Your task to perform on an android device: Go to wifi settings Image 0: 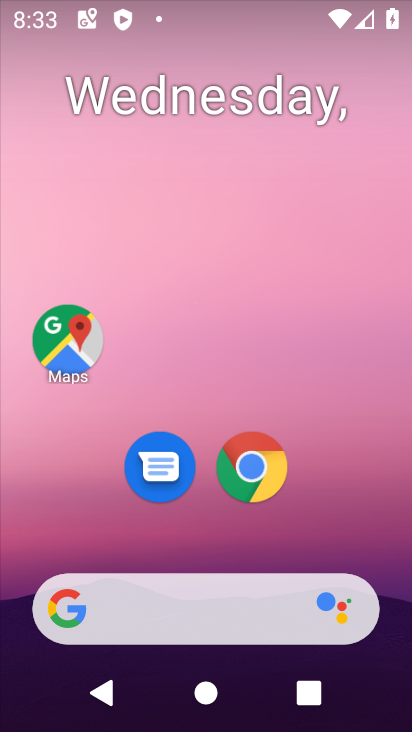
Step 0: drag from (266, 696) to (265, 201)
Your task to perform on an android device: Go to wifi settings Image 1: 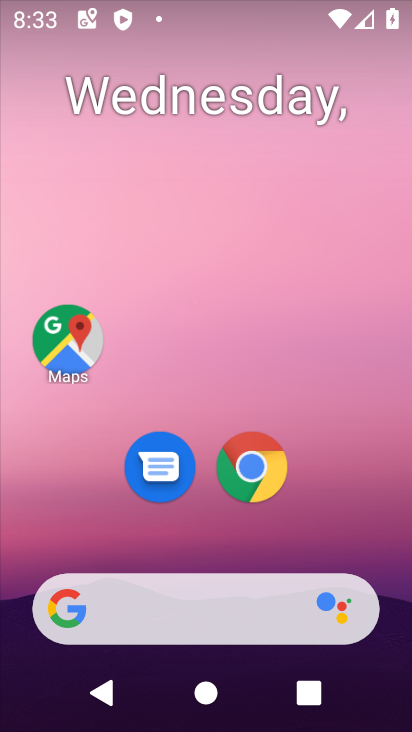
Step 1: drag from (272, 455) to (221, 82)
Your task to perform on an android device: Go to wifi settings Image 2: 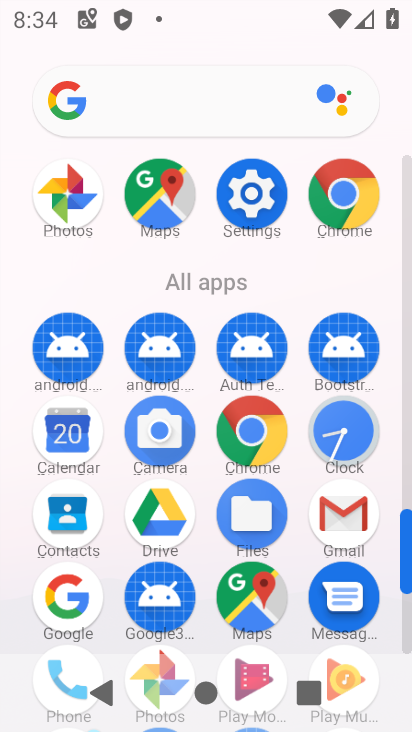
Step 2: click (245, 207)
Your task to perform on an android device: Go to wifi settings Image 3: 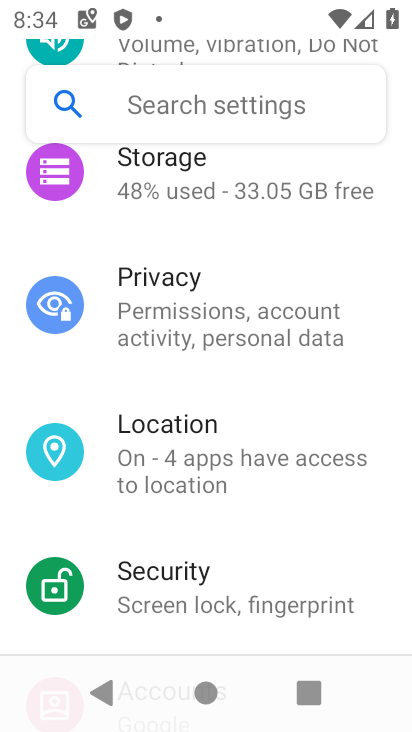
Step 3: drag from (291, 360) to (302, 416)
Your task to perform on an android device: Go to wifi settings Image 4: 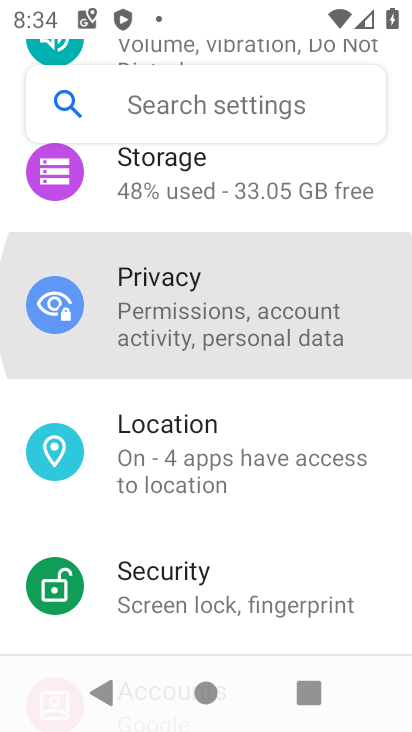
Step 4: drag from (249, 452) to (249, 490)
Your task to perform on an android device: Go to wifi settings Image 5: 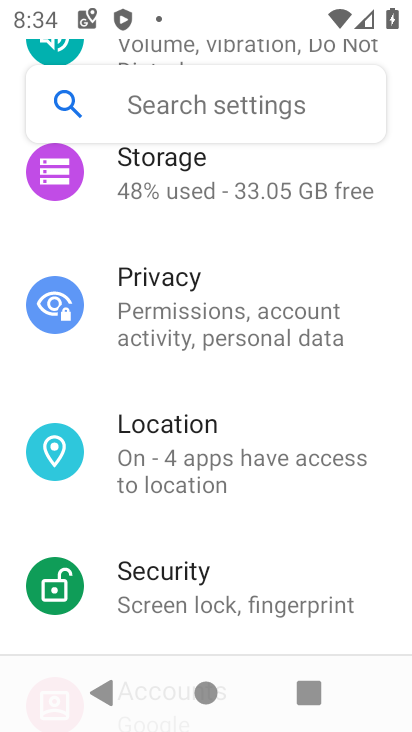
Step 5: drag from (213, 475) to (247, 493)
Your task to perform on an android device: Go to wifi settings Image 6: 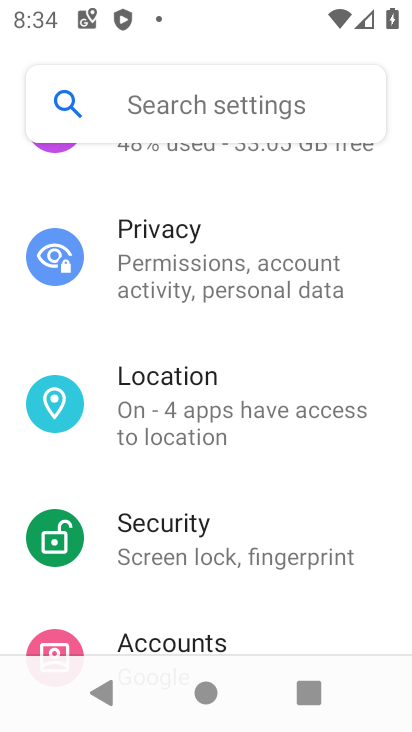
Step 6: drag from (267, 437) to (310, 571)
Your task to perform on an android device: Go to wifi settings Image 7: 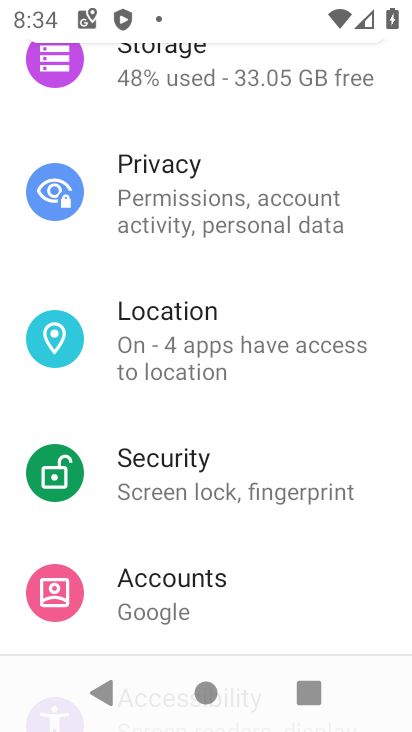
Step 7: drag from (258, 318) to (311, 561)
Your task to perform on an android device: Go to wifi settings Image 8: 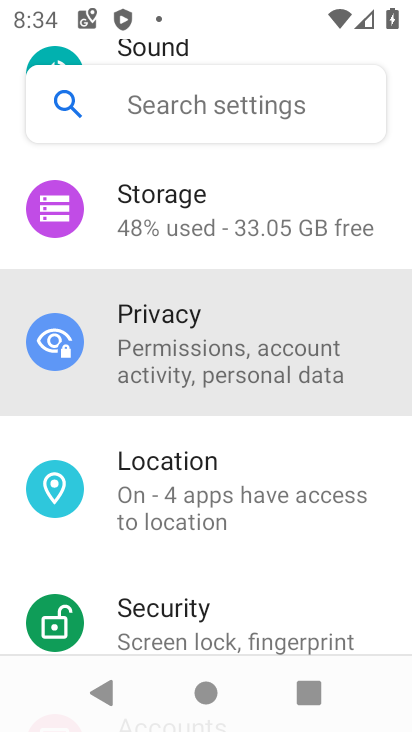
Step 8: drag from (310, 304) to (310, 626)
Your task to perform on an android device: Go to wifi settings Image 9: 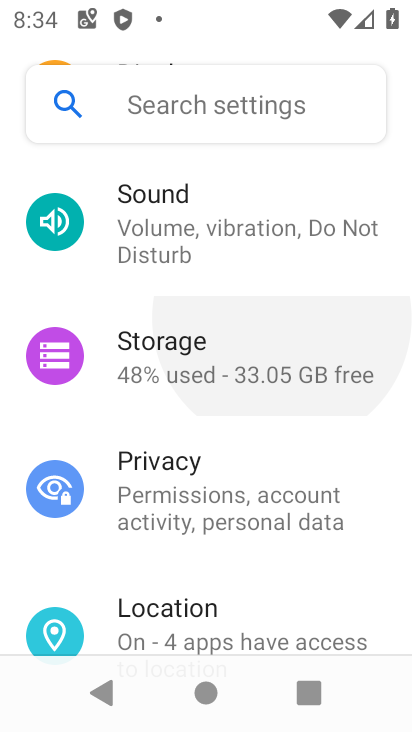
Step 9: drag from (187, 248) to (334, 662)
Your task to perform on an android device: Go to wifi settings Image 10: 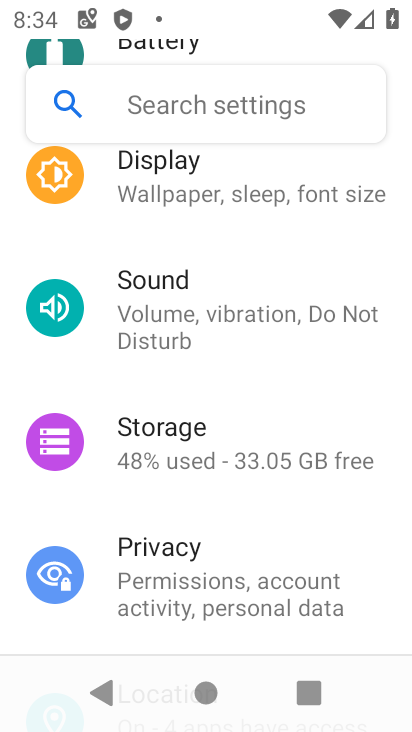
Step 10: drag from (352, 209) to (203, 605)
Your task to perform on an android device: Go to wifi settings Image 11: 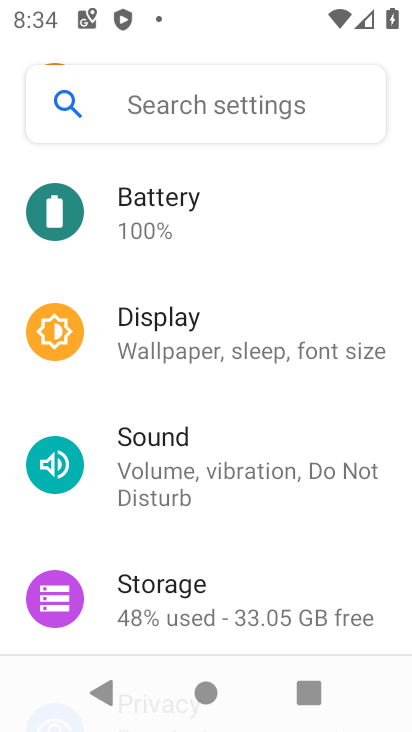
Step 11: drag from (216, 585) to (271, 588)
Your task to perform on an android device: Go to wifi settings Image 12: 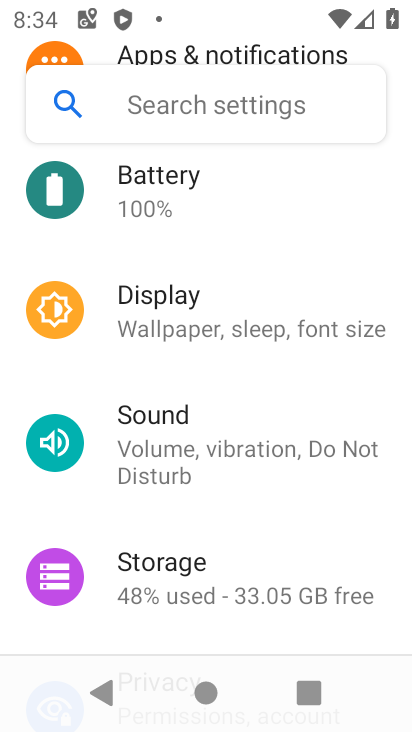
Step 12: click (258, 620)
Your task to perform on an android device: Go to wifi settings Image 13: 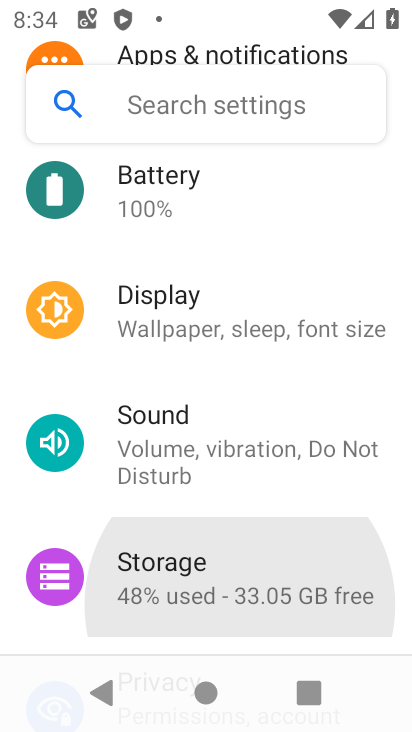
Step 13: drag from (283, 464) to (236, 513)
Your task to perform on an android device: Go to wifi settings Image 14: 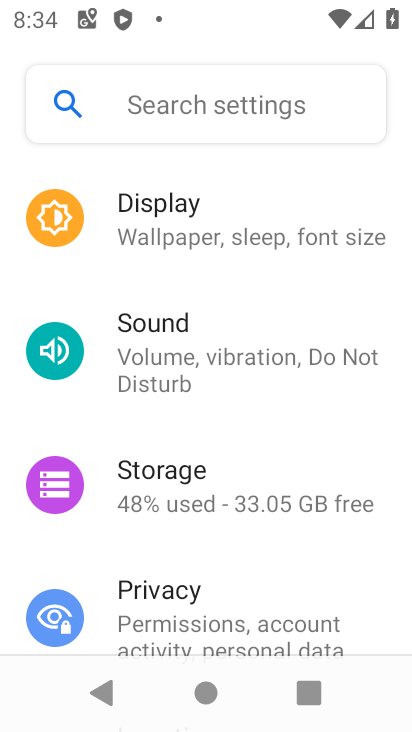
Step 14: drag from (290, 556) to (313, 612)
Your task to perform on an android device: Go to wifi settings Image 15: 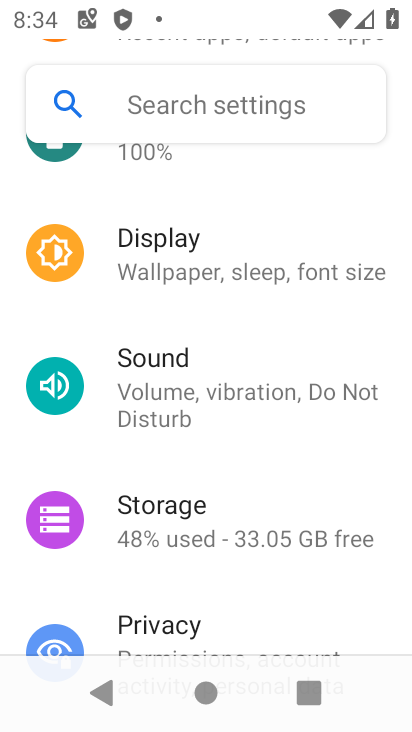
Step 15: drag from (314, 469) to (285, 626)
Your task to perform on an android device: Go to wifi settings Image 16: 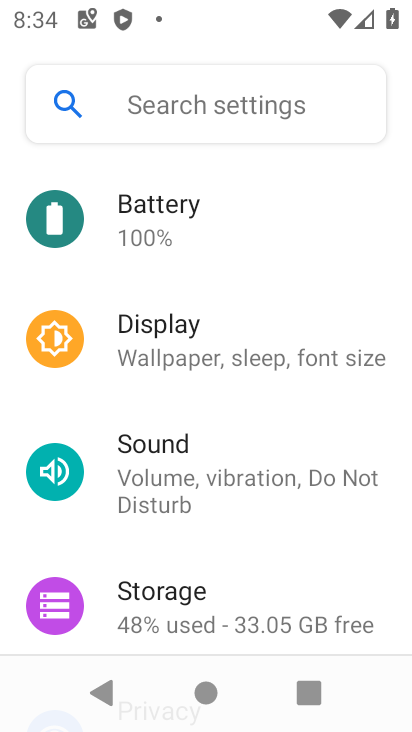
Step 16: drag from (204, 405) to (278, 665)
Your task to perform on an android device: Go to wifi settings Image 17: 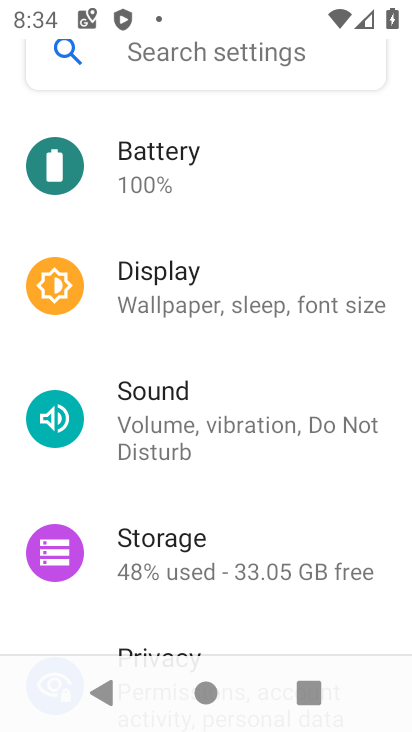
Step 17: drag from (236, 308) to (216, 622)
Your task to perform on an android device: Go to wifi settings Image 18: 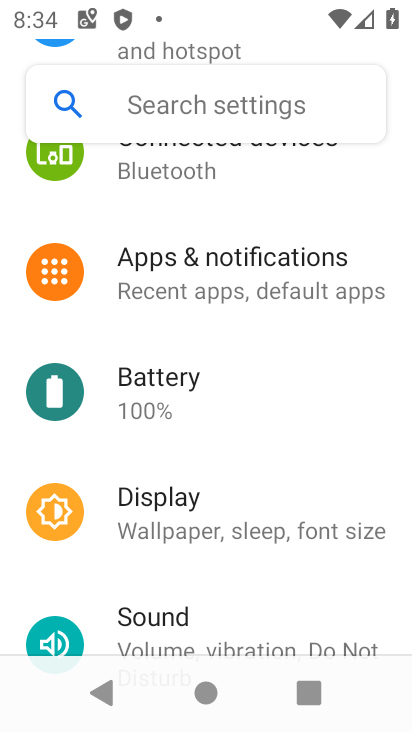
Step 18: drag from (248, 263) to (273, 542)
Your task to perform on an android device: Go to wifi settings Image 19: 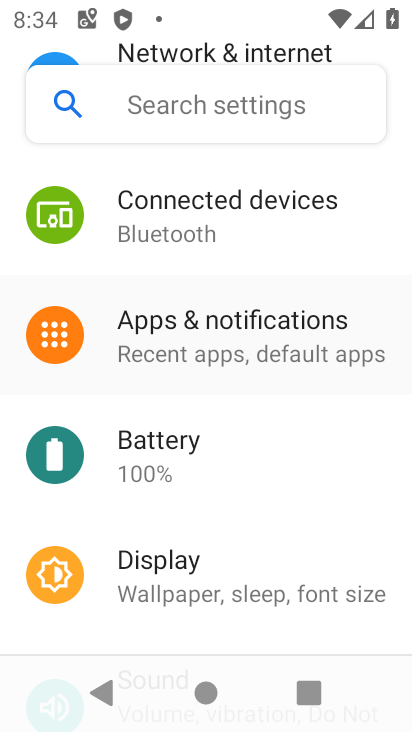
Step 19: drag from (243, 275) to (298, 671)
Your task to perform on an android device: Go to wifi settings Image 20: 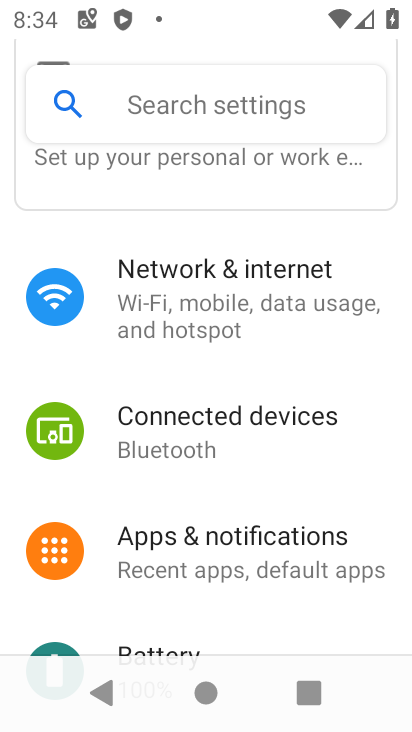
Step 20: click (264, 279)
Your task to perform on an android device: Go to wifi settings Image 21: 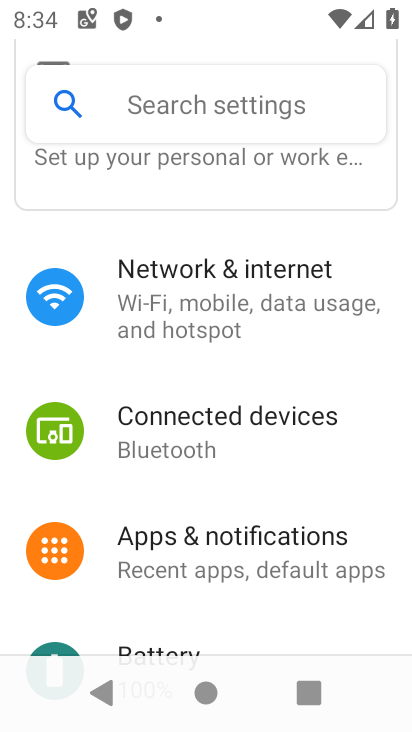
Step 21: click (164, 294)
Your task to perform on an android device: Go to wifi settings Image 22: 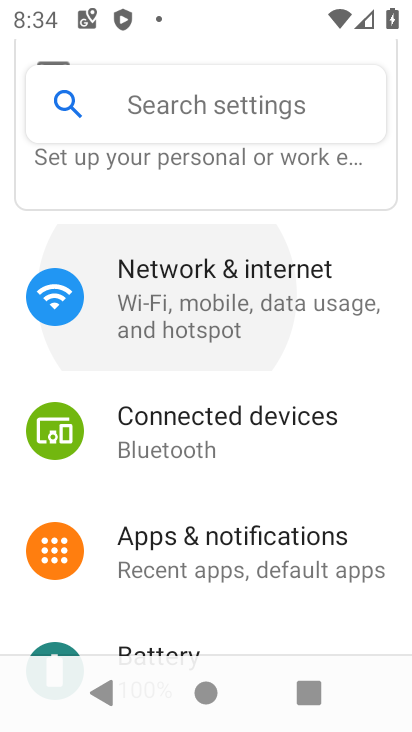
Step 22: click (172, 289)
Your task to perform on an android device: Go to wifi settings Image 23: 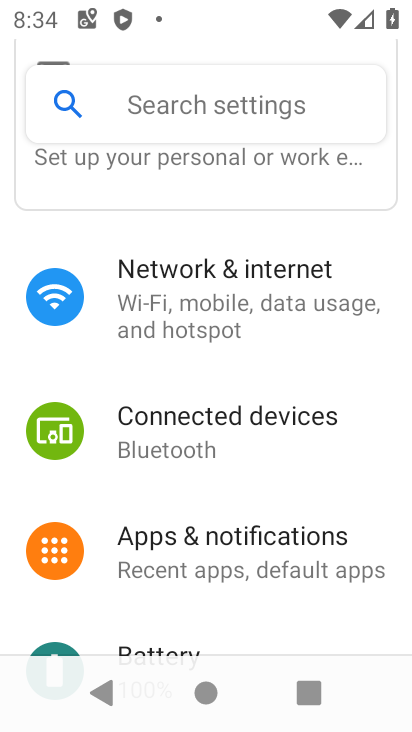
Step 23: click (172, 289)
Your task to perform on an android device: Go to wifi settings Image 24: 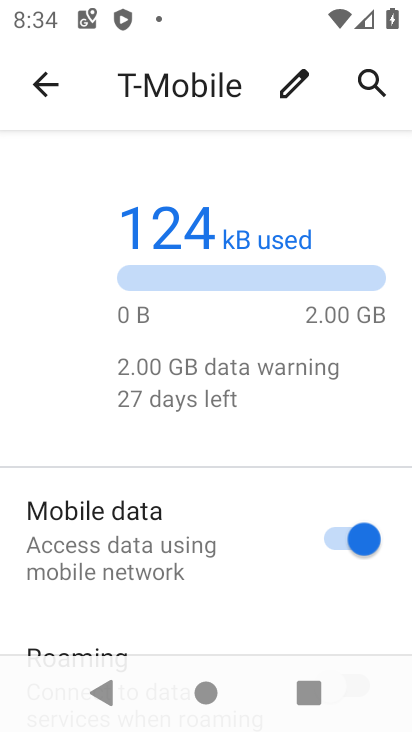
Step 24: click (42, 89)
Your task to perform on an android device: Go to wifi settings Image 25: 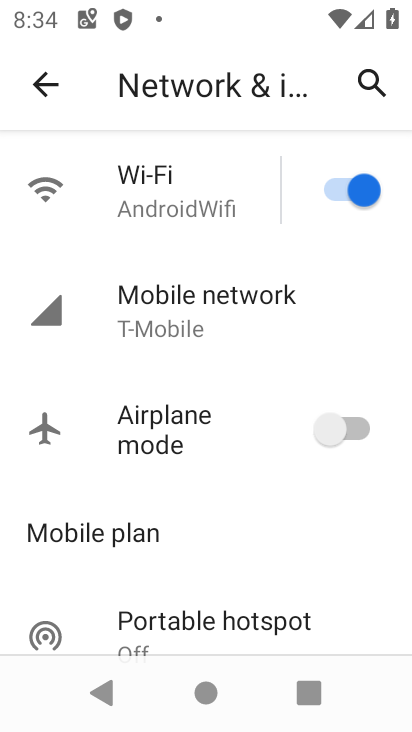
Step 25: task complete